Your task to perform on an android device: Open settings Image 0: 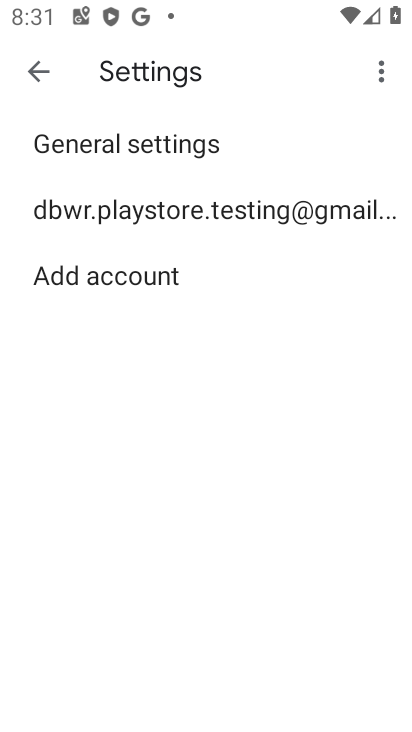
Step 0: press home button
Your task to perform on an android device: Open settings Image 1: 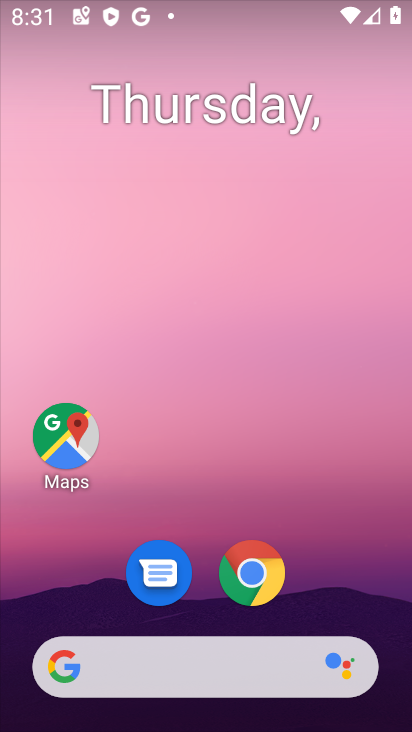
Step 1: drag from (344, 608) to (343, 138)
Your task to perform on an android device: Open settings Image 2: 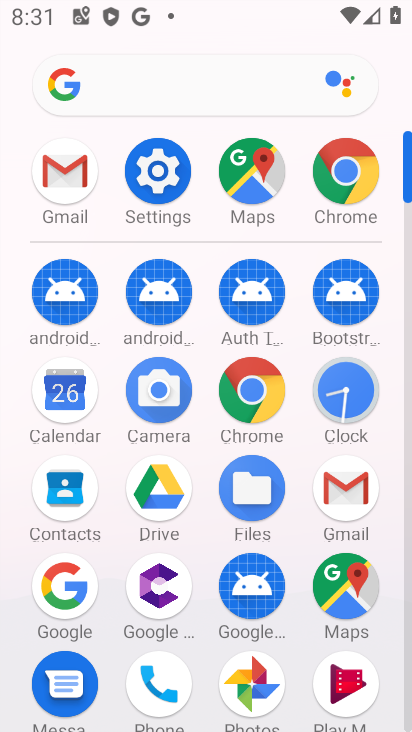
Step 2: click (165, 184)
Your task to perform on an android device: Open settings Image 3: 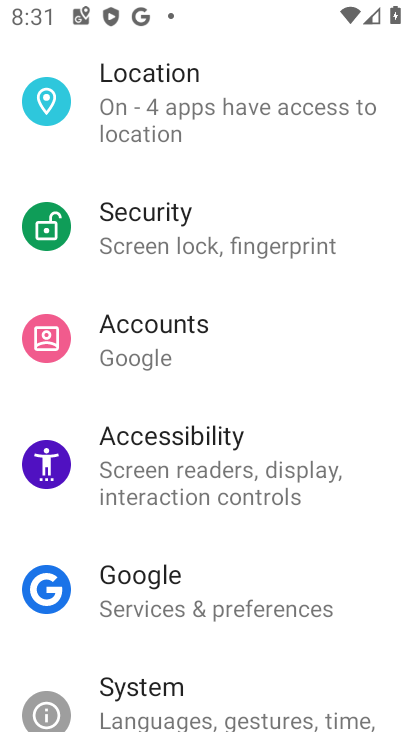
Step 3: task complete